Your task to perform on an android device: turn off notifications in google photos Image 0: 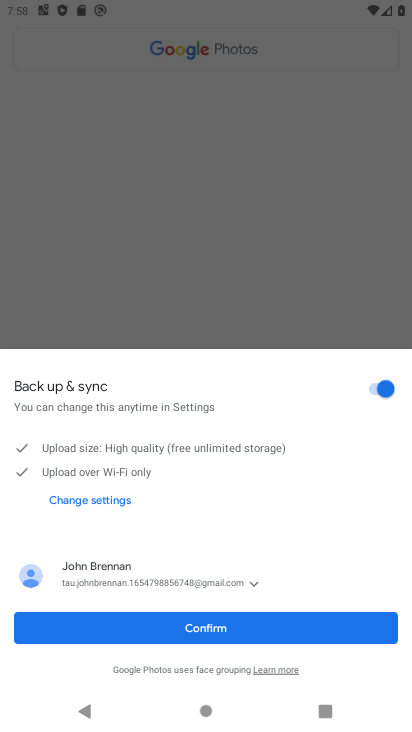
Step 0: press home button
Your task to perform on an android device: turn off notifications in google photos Image 1: 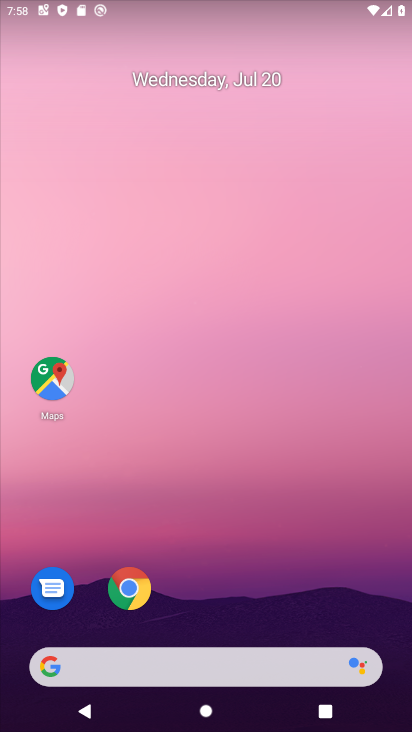
Step 1: drag from (250, 646) to (102, 368)
Your task to perform on an android device: turn off notifications in google photos Image 2: 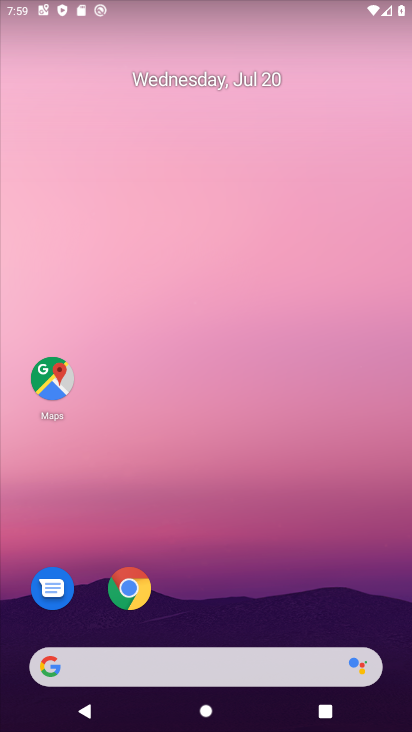
Step 2: drag from (275, 659) to (70, 154)
Your task to perform on an android device: turn off notifications in google photos Image 3: 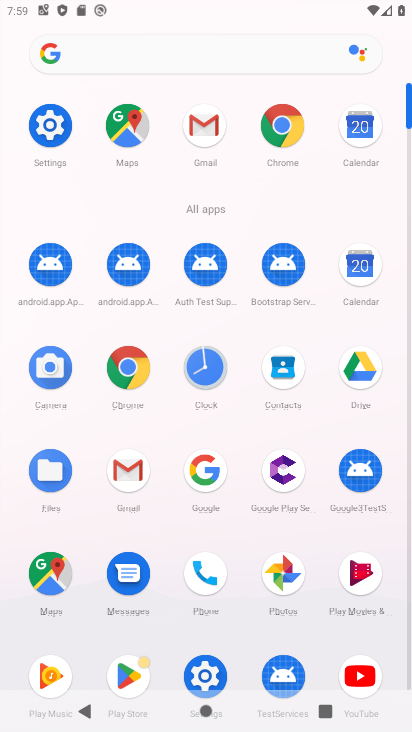
Step 3: click (290, 572)
Your task to perform on an android device: turn off notifications in google photos Image 4: 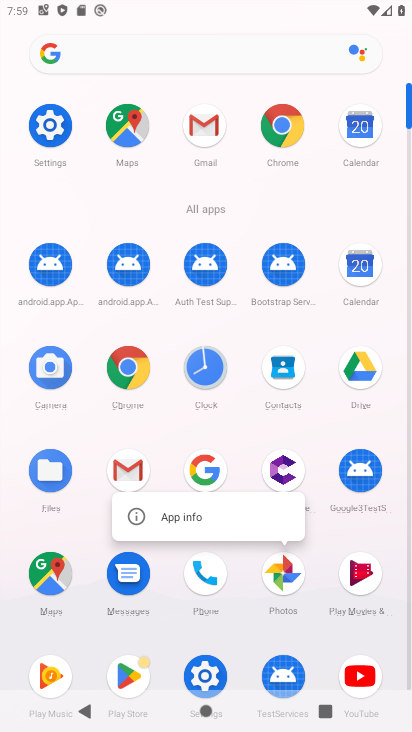
Step 4: click (199, 518)
Your task to perform on an android device: turn off notifications in google photos Image 5: 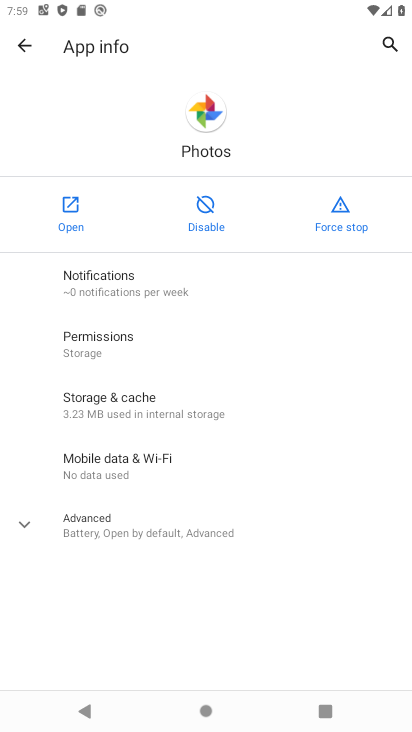
Step 5: click (208, 275)
Your task to perform on an android device: turn off notifications in google photos Image 6: 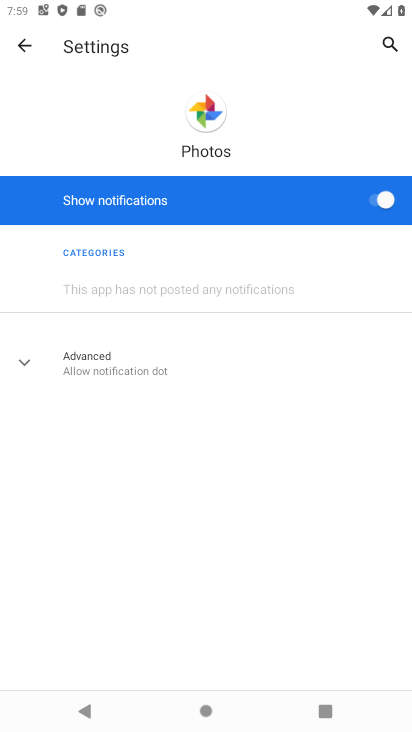
Step 6: click (386, 202)
Your task to perform on an android device: turn off notifications in google photos Image 7: 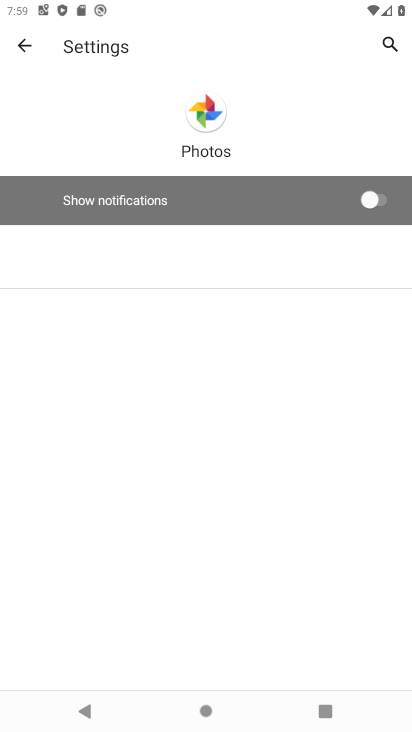
Step 7: task complete